Your task to perform on an android device: Open Chrome and go to the settings page Image 0: 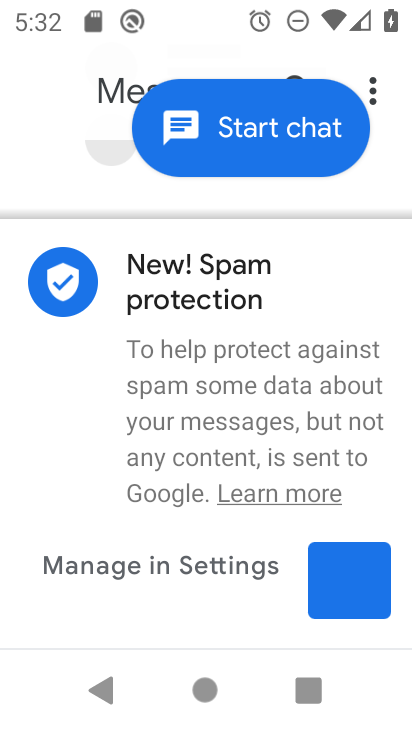
Step 0: press home button
Your task to perform on an android device: Open Chrome and go to the settings page Image 1: 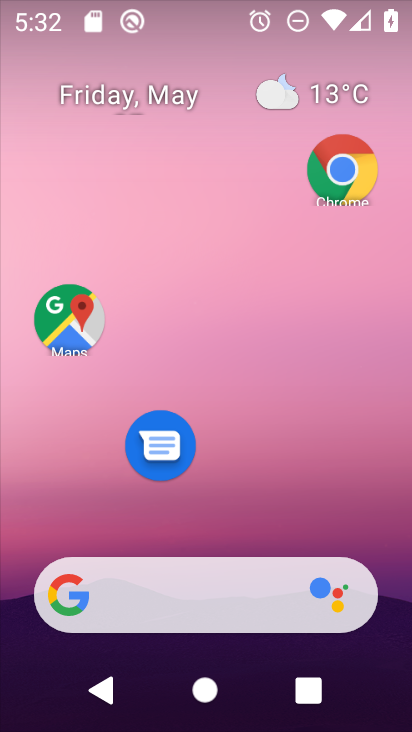
Step 1: click (343, 167)
Your task to perform on an android device: Open Chrome and go to the settings page Image 2: 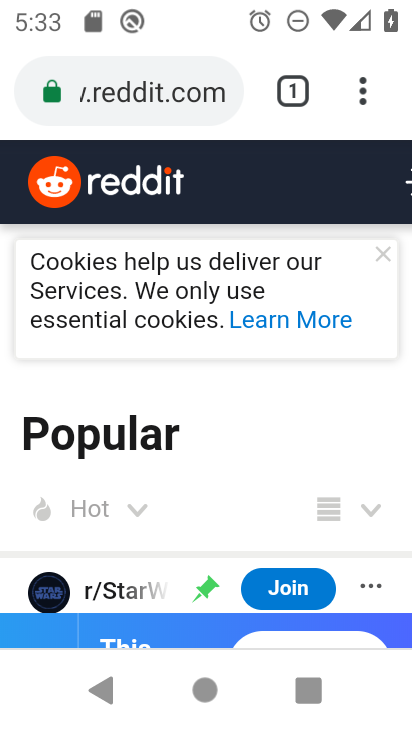
Step 2: click (364, 104)
Your task to perform on an android device: Open Chrome and go to the settings page Image 3: 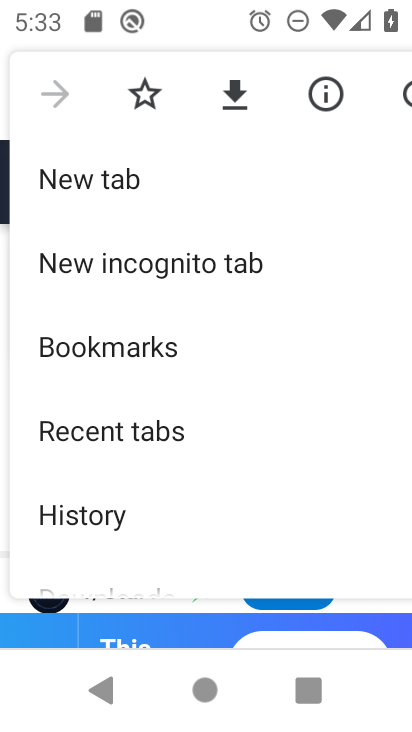
Step 3: drag from (91, 525) to (89, 63)
Your task to perform on an android device: Open Chrome and go to the settings page Image 4: 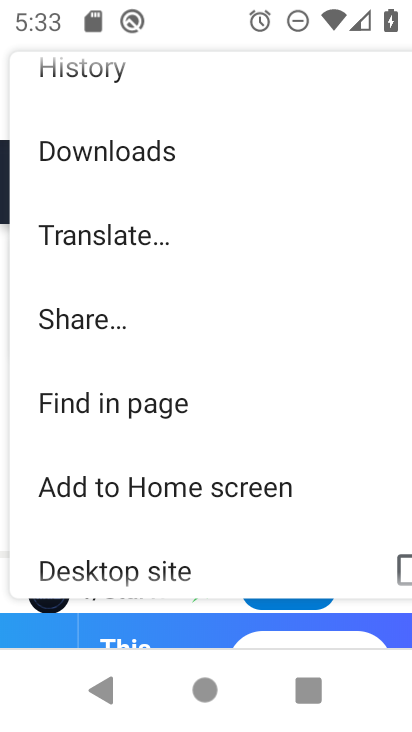
Step 4: drag from (116, 510) to (153, 63)
Your task to perform on an android device: Open Chrome and go to the settings page Image 5: 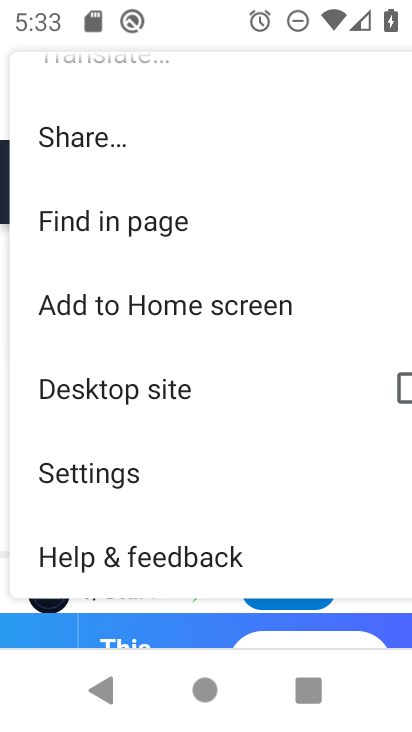
Step 5: click (88, 479)
Your task to perform on an android device: Open Chrome and go to the settings page Image 6: 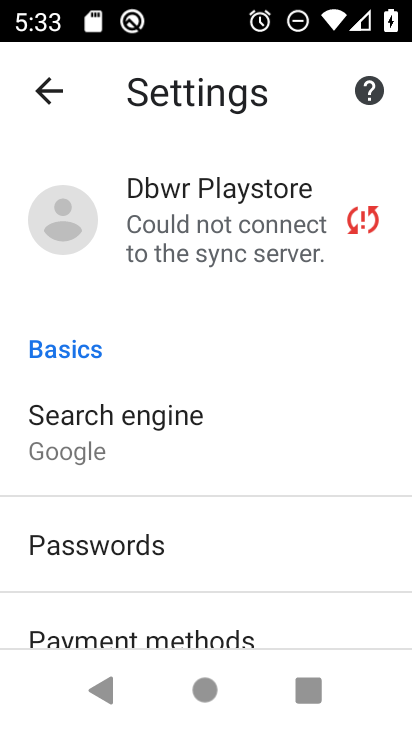
Step 6: task complete